Your task to perform on an android device: What is the news today? Image 0: 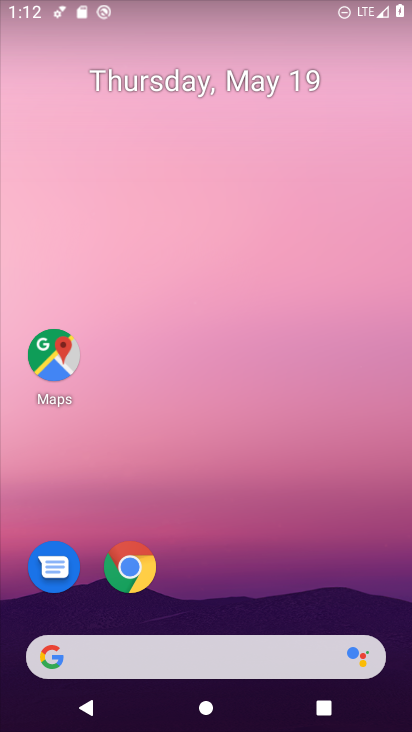
Step 0: click (256, 665)
Your task to perform on an android device: What is the news today? Image 1: 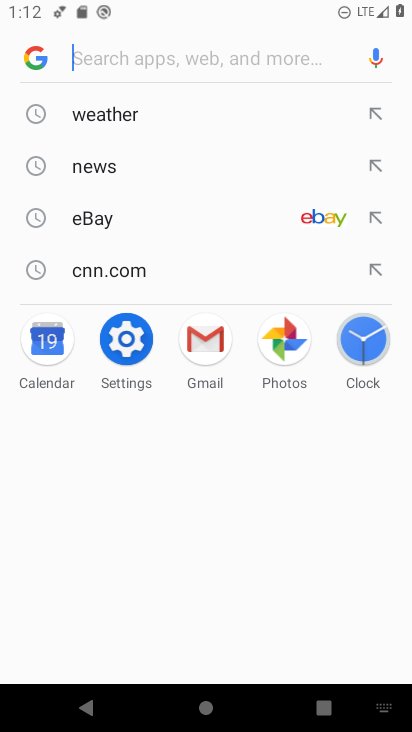
Step 1: click (101, 165)
Your task to perform on an android device: What is the news today? Image 2: 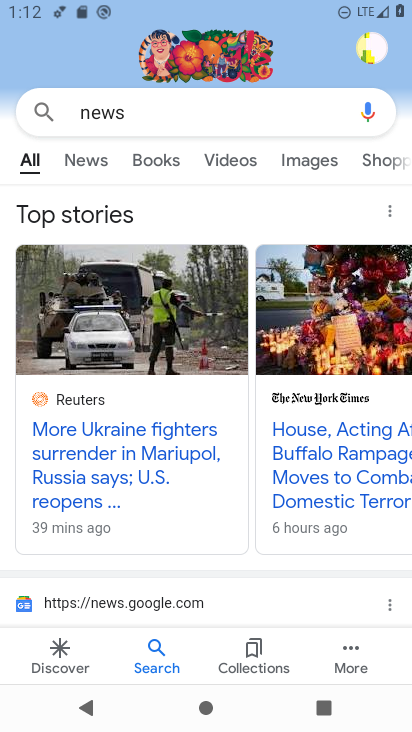
Step 2: click (97, 153)
Your task to perform on an android device: What is the news today? Image 3: 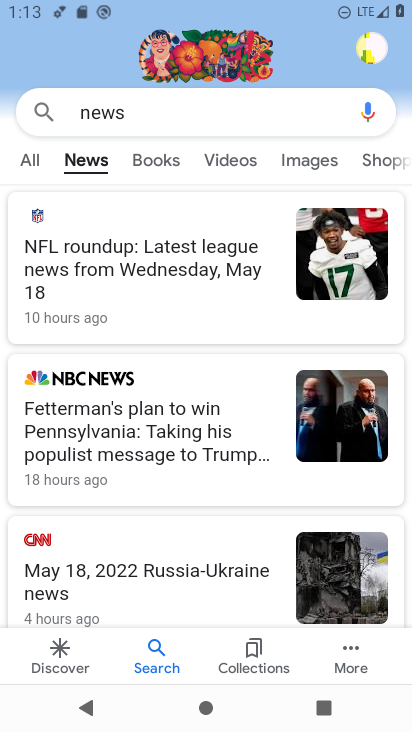
Step 3: task complete